Your task to perform on an android device: Go to privacy settings Image 0: 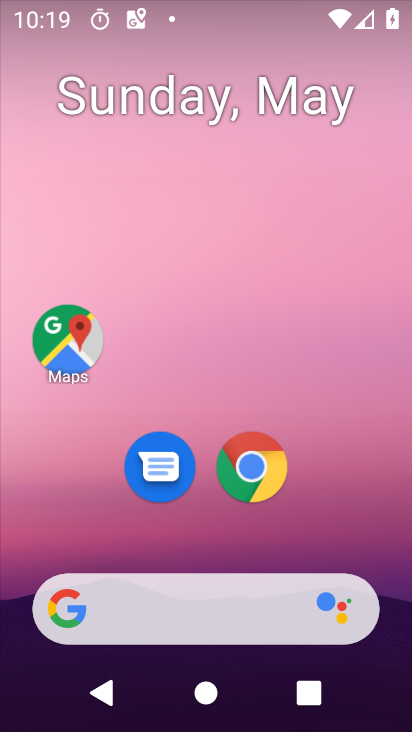
Step 0: drag from (214, 537) to (179, 158)
Your task to perform on an android device: Go to privacy settings Image 1: 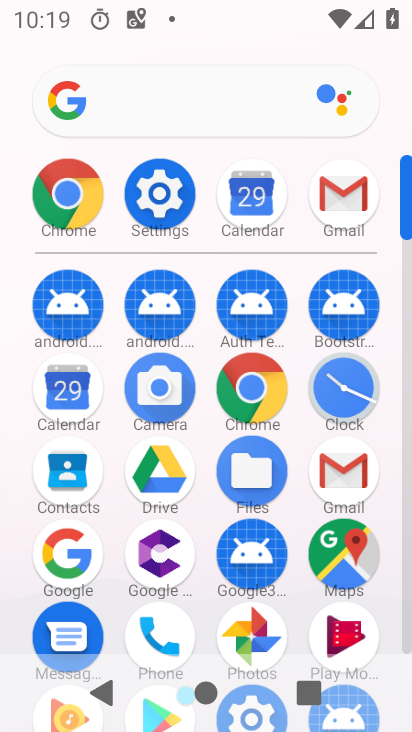
Step 1: click (172, 173)
Your task to perform on an android device: Go to privacy settings Image 2: 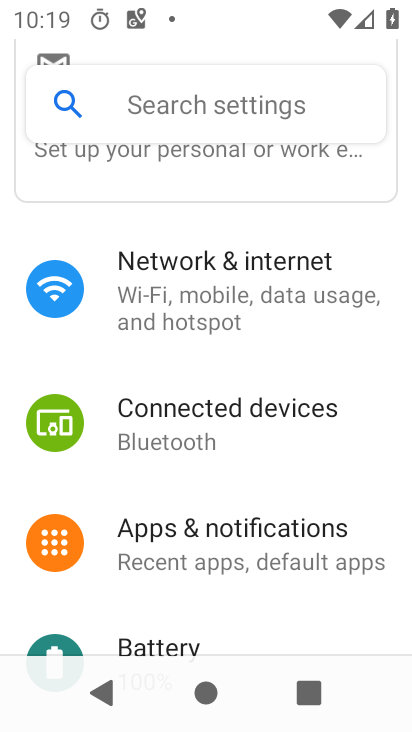
Step 2: drag from (299, 544) to (262, 245)
Your task to perform on an android device: Go to privacy settings Image 3: 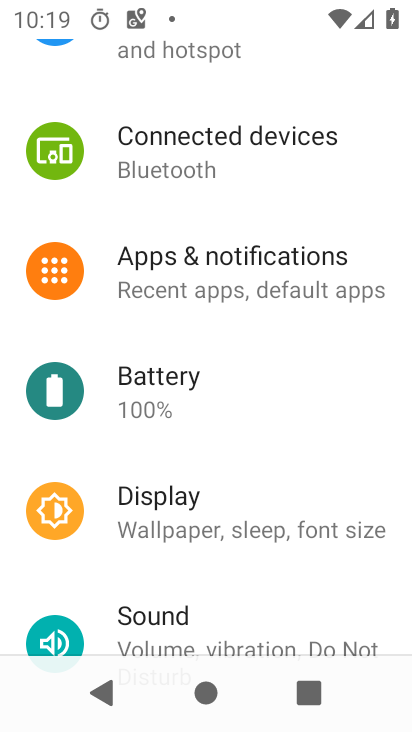
Step 3: drag from (256, 562) to (260, 307)
Your task to perform on an android device: Go to privacy settings Image 4: 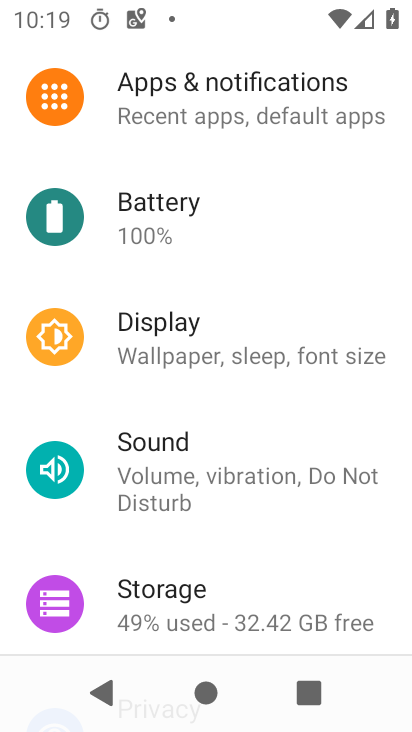
Step 4: drag from (265, 579) to (241, 292)
Your task to perform on an android device: Go to privacy settings Image 5: 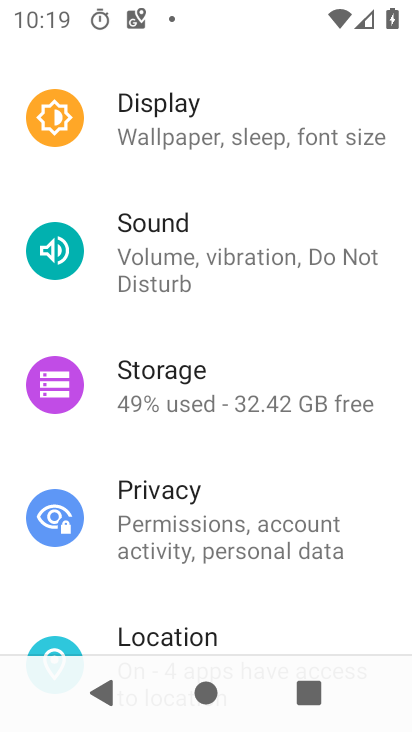
Step 5: drag from (235, 515) to (240, 324)
Your task to perform on an android device: Go to privacy settings Image 6: 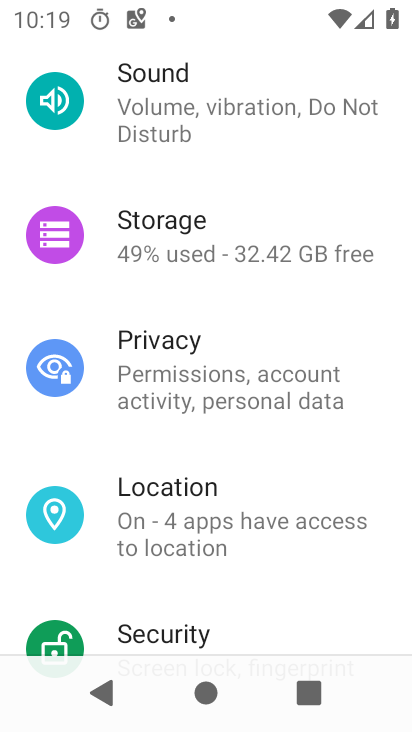
Step 6: click (224, 370)
Your task to perform on an android device: Go to privacy settings Image 7: 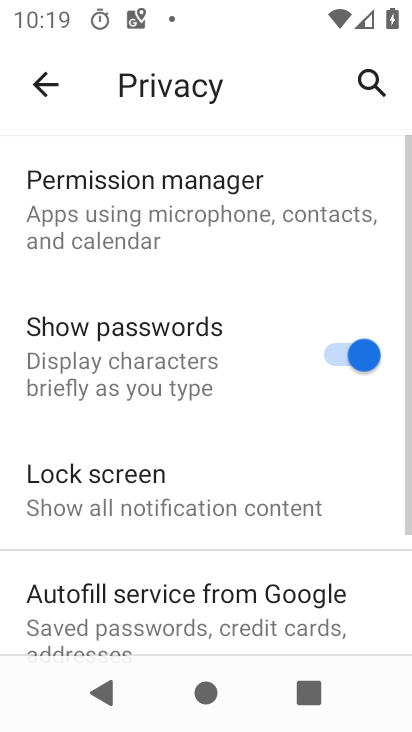
Step 7: task complete